Your task to perform on an android device: Search for sushi restaurants on Maps Image 0: 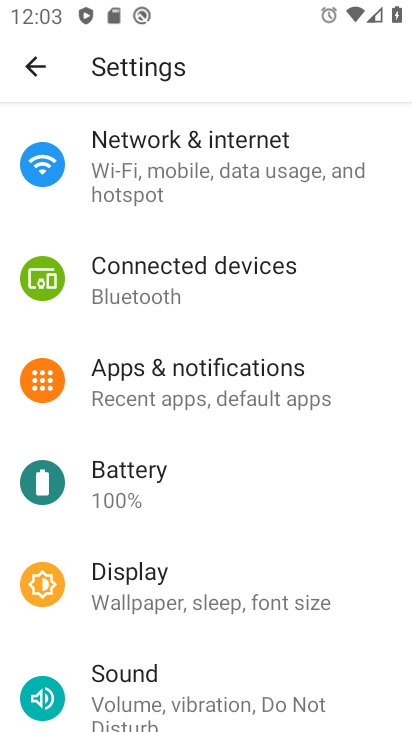
Step 0: press home button
Your task to perform on an android device: Search for sushi restaurants on Maps Image 1: 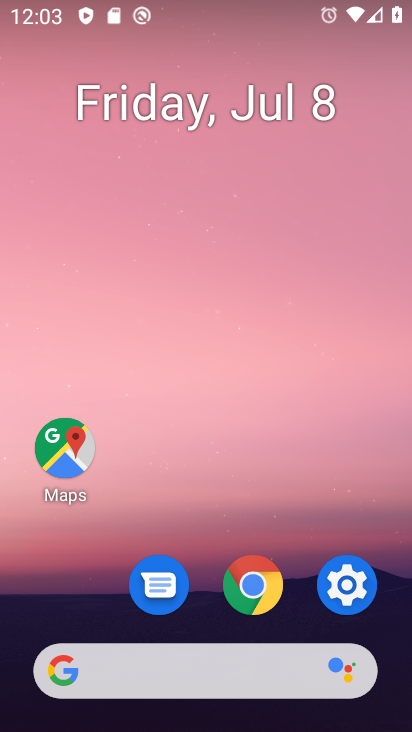
Step 1: click (53, 470)
Your task to perform on an android device: Search for sushi restaurants on Maps Image 2: 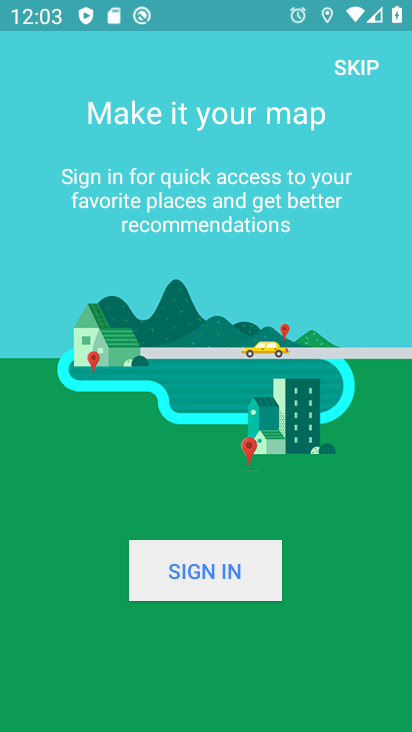
Step 2: click (351, 75)
Your task to perform on an android device: Search for sushi restaurants on Maps Image 3: 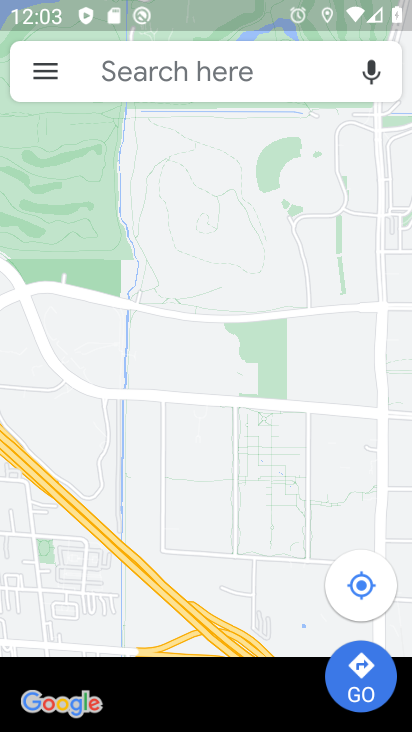
Step 3: click (198, 73)
Your task to perform on an android device: Search for sushi restaurants on Maps Image 4: 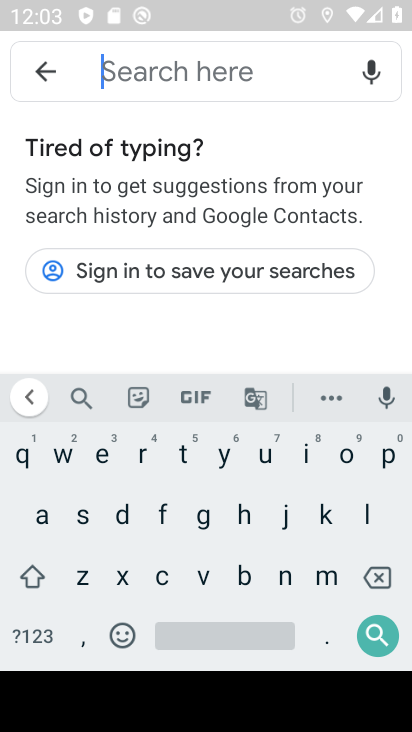
Step 4: click (83, 510)
Your task to perform on an android device: Search for sushi restaurants on Maps Image 5: 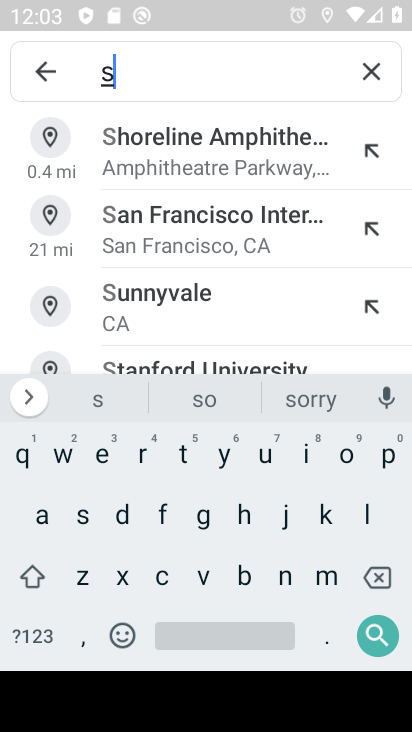
Step 5: click (264, 461)
Your task to perform on an android device: Search for sushi restaurants on Maps Image 6: 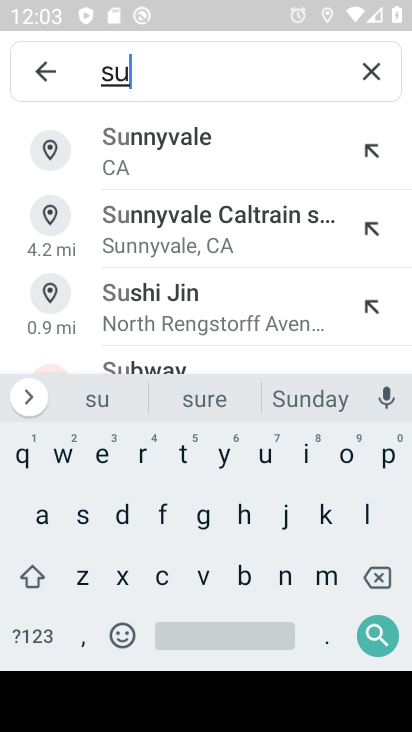
Step 6: click (86, 510)
Your task to perform on an android device: Search for sushi restaurants on Maps Image 7: 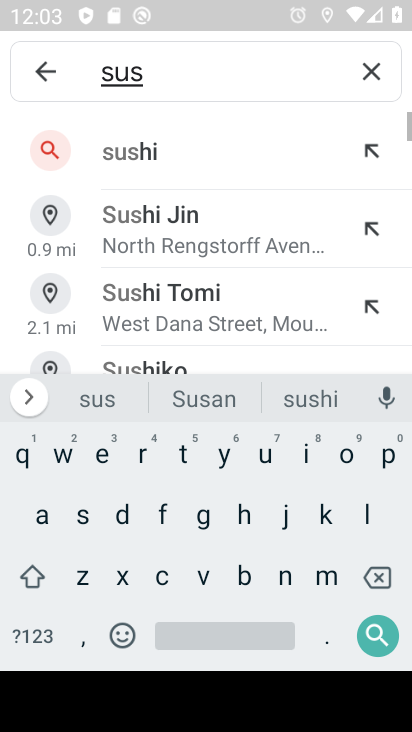
Step 7: click (239, 514)
Your task to perform on an android device: Search for sushi restaurants on Maps Image 8: 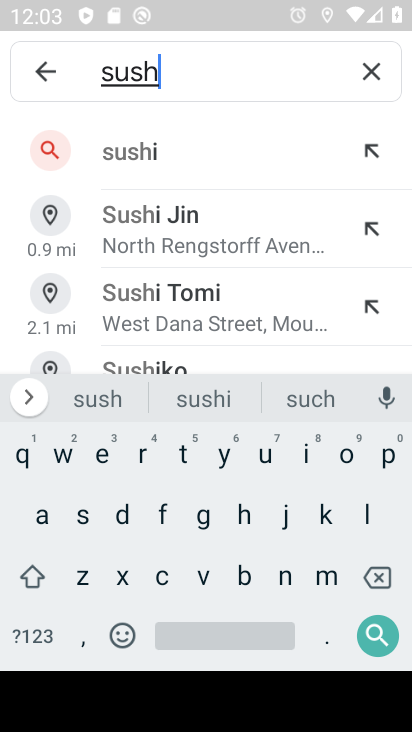
Step 8: click (204, 407)
Your task to perform on an android device: Search for sushi restaurants on Maps Image 9: 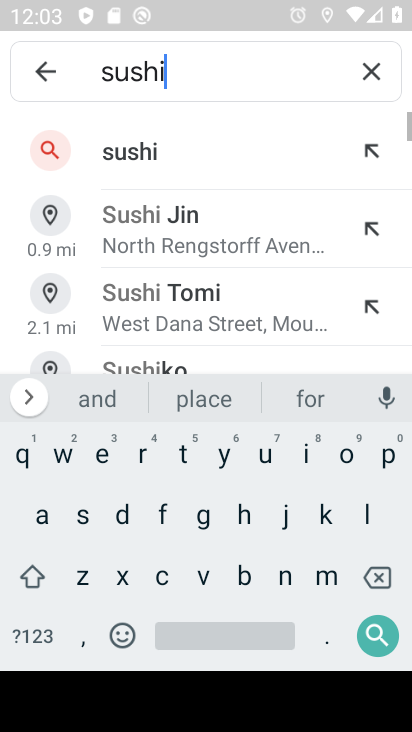
Step 9: click (137, 453)
Your task to perform on an android device: Search for sushi restaurants on Maps Image 10: 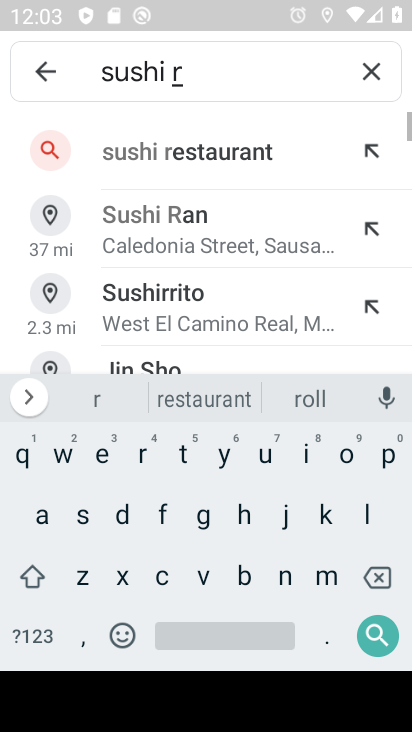
Step 10: click (227, 157)
Your task to perform on an android device: Search for sushi restaurants on Maps Image 11: 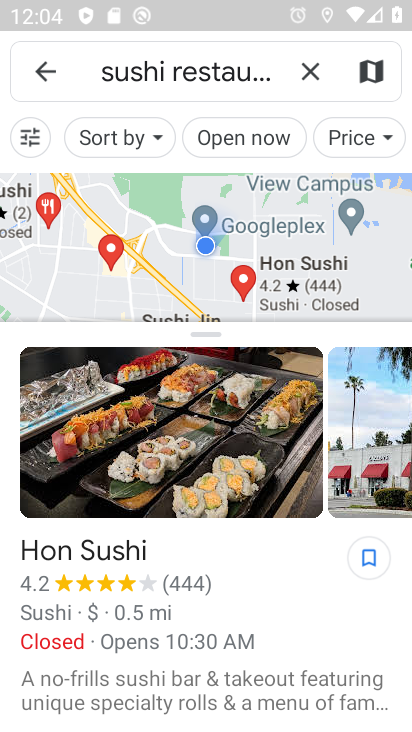
Step 11: task complete